Your task to perform on an android device: change the clock display to show seconds Image 0: 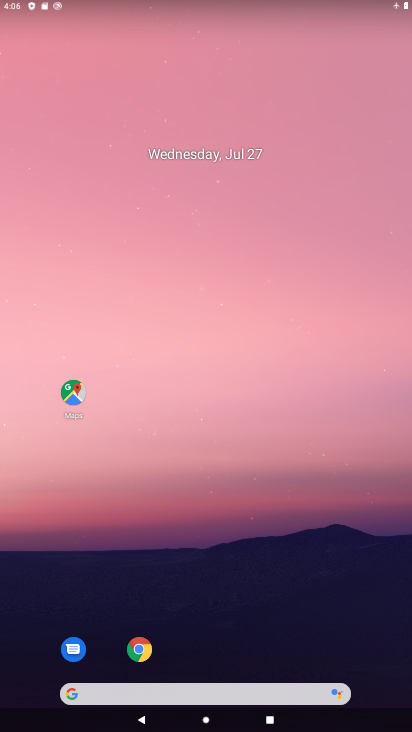
Step 0: drag from (332, 665) to (272, 126)
Your task to perform on an android device: change the clock display to show seconds Image 1: 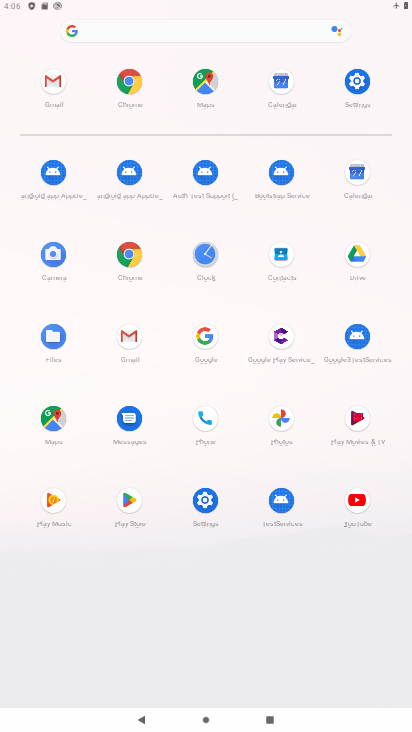
Step 1: click (204, 263)
Your task to perform on an android device: change the clock display to show seconds Image 2: 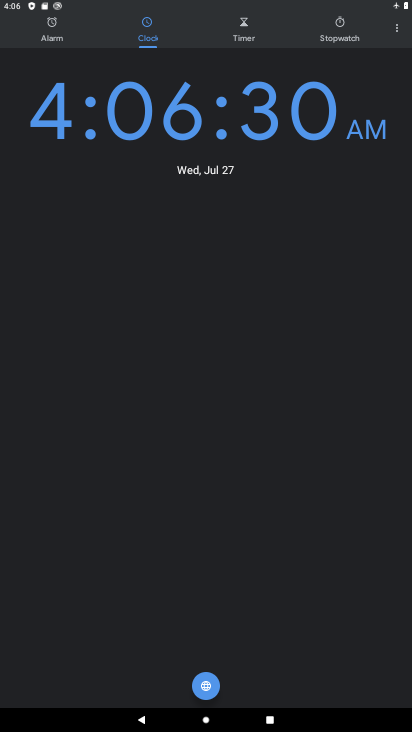
Step 2: click (395, 34)
Your task to perform on an android device: change the clock display to show seconds Image 3: 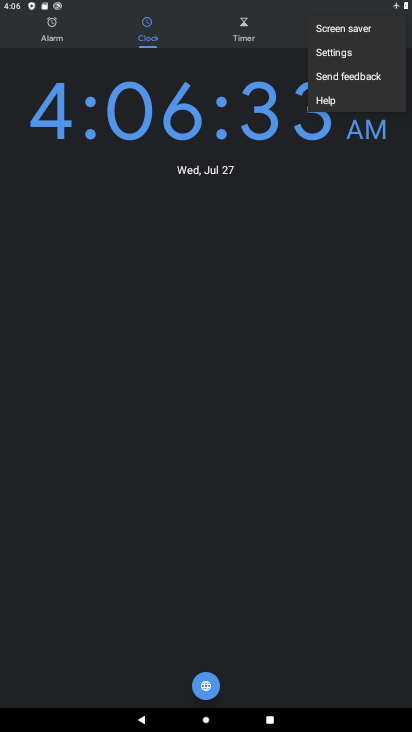
Step 3: click (361, 54)
Your task to perform on an android device: change the clock display to show seconds Image 4: 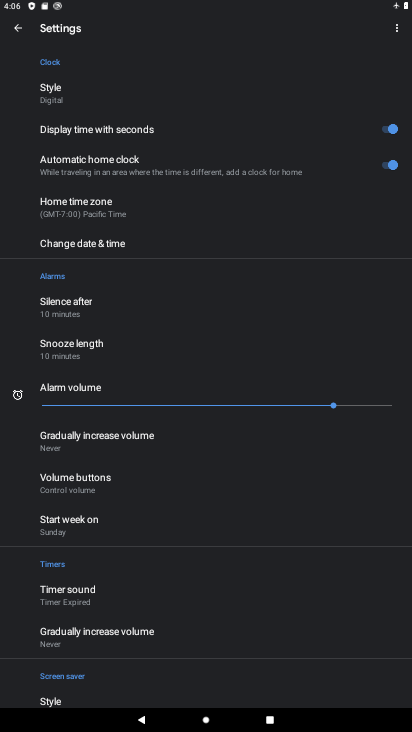
Step 4: task complete